Your task to perform on an android device: open a new tab in the chrome app Image 0: 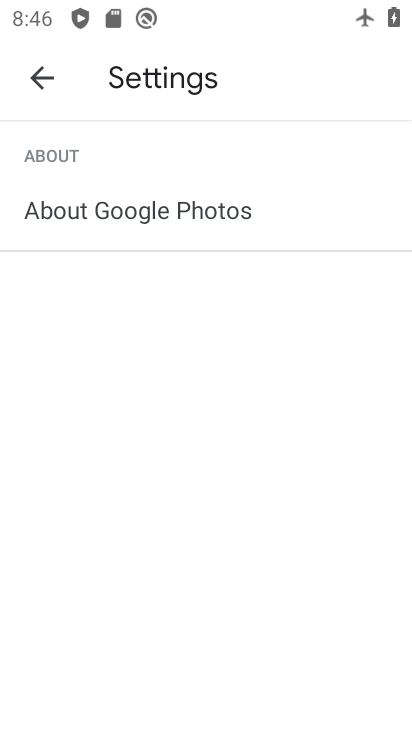
Step 0: press home button
Your task to perform on an android device: open a new tab in the chrome app Image 1: 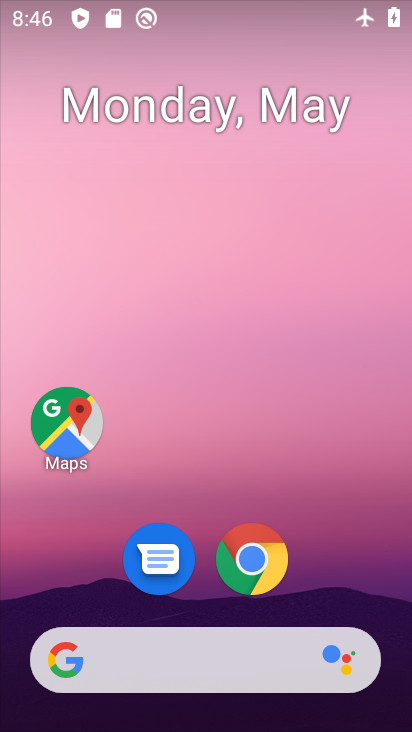
Step 1: click (248, 556)
Your task to perform on an android device: open a new tab in the chrome app Image 2: 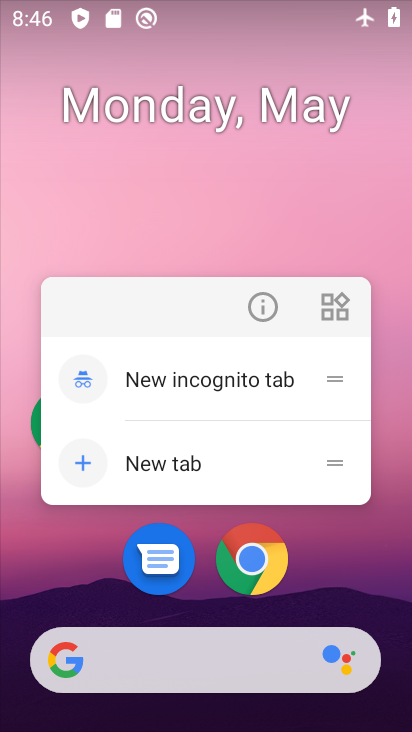
Step 2: click (244, 547)
Your task to perform on an android device: open a new tab in the chrome app Image 3: 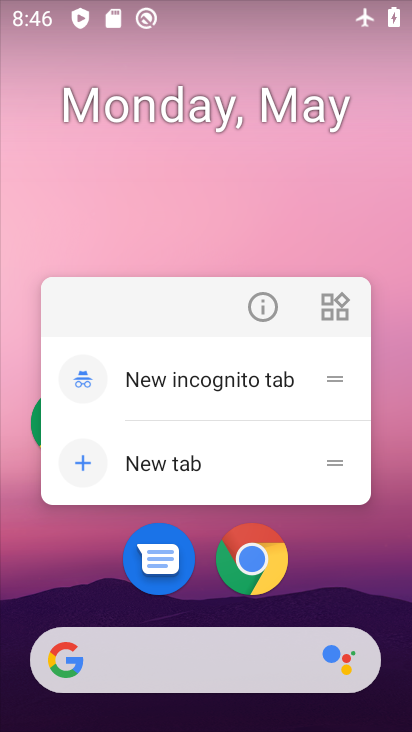
Step 3: click (259, 558)
Your task to perform on an android device: open a new tab in the chrome app Image 4: 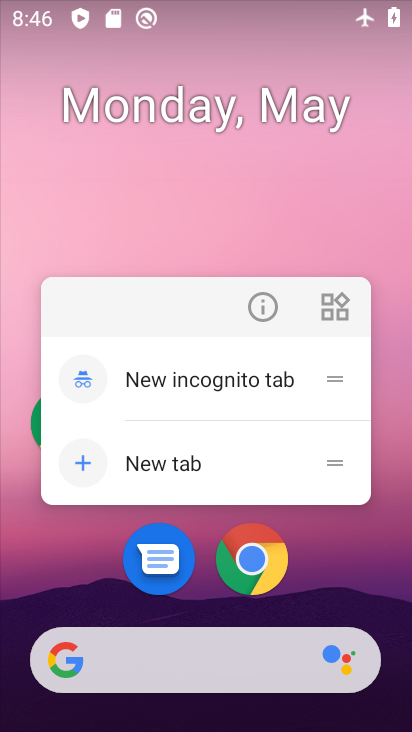
Step 4: click (243, 538)
Your task to perform on an android device: open a new tab in the chrome app Image 5: 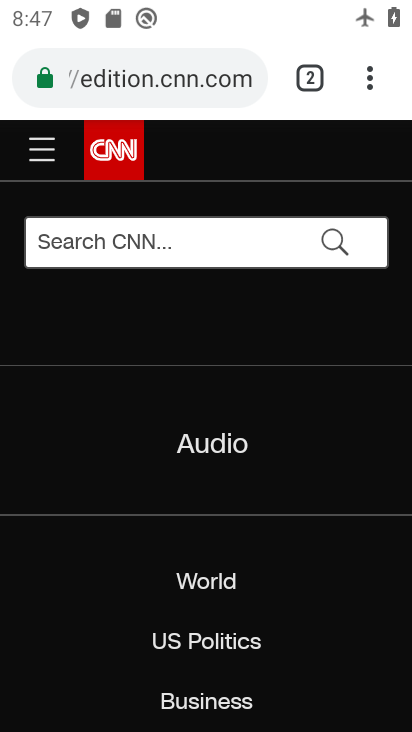
Step 5: click (360, 82)
Your task to perform on an android device: open a new tab in the chrome app Image 6: 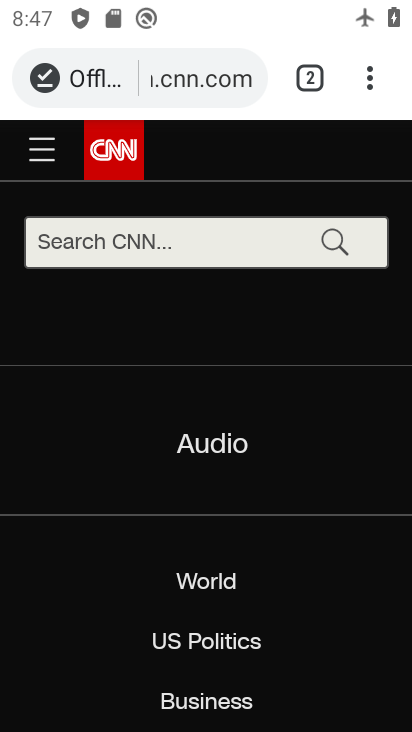
Step 6: click (376, 102)
Your task to perform on an android device: open a new tab in the chrome app Image 7: 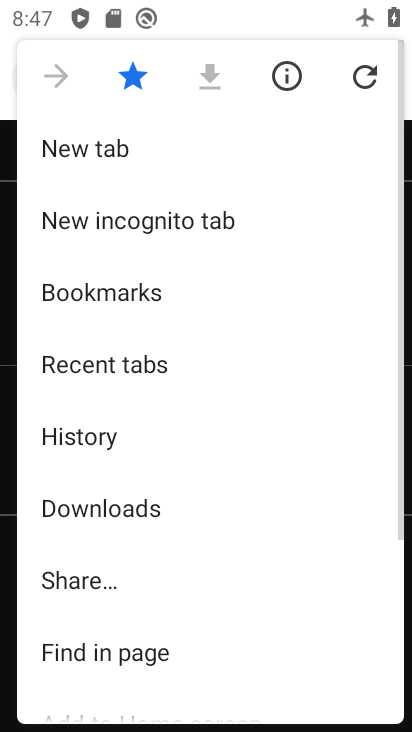
Step 7: click (73, 162)
Your task to perform on an android device: open a new tab in the chrome app Image 8: 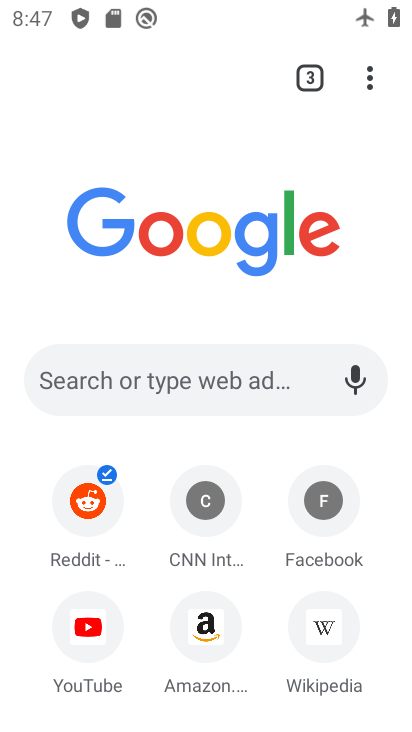
Step 8: task complete